Your task to perform on an android device: Go to Yahoo.com Image 0: 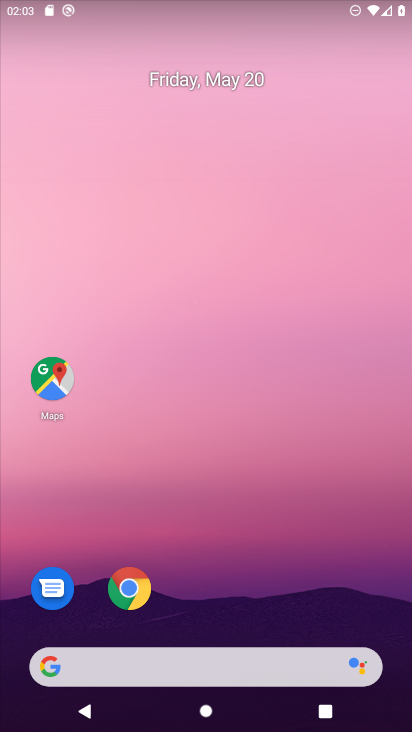
Step 0: click (129, 590)
Your task to perform on an android device: Go to Yahoo.com Image 1: 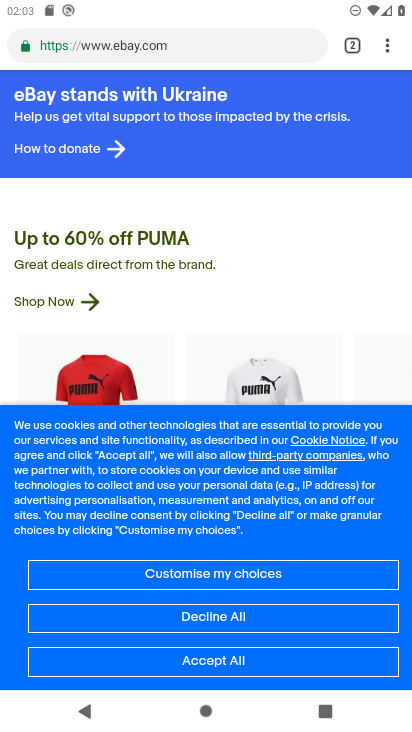
Step 1: click (191, 38)
Your task to perform on an android device: Go to Yahoo.com Image 2: 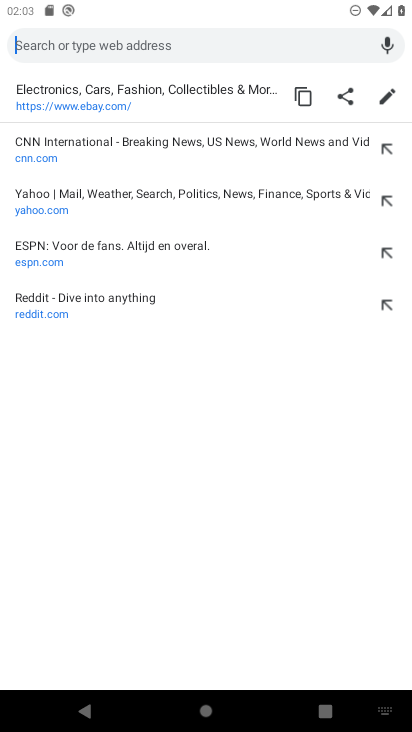
Step 2: type "yahoo.com"
Your task to perform on an android device: Go to Yahoo.com Image 3: 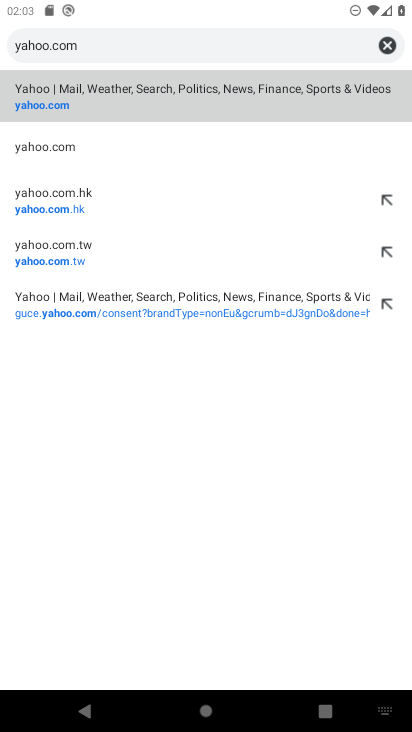
Step 3: click (84, 100)
Your task to perform on an android device: Go to Yahoo.com Image 4: 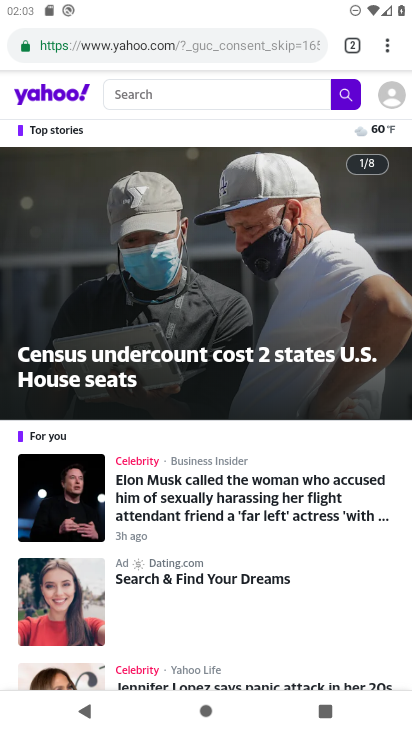
Step 4: task complete